Your task to perform on an android device: Open the Play Movies app and select the watchlist tab. Image 0: 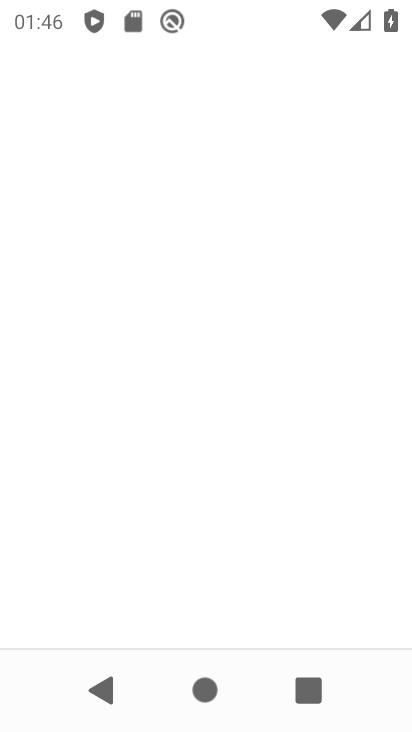
Step 0: drag from (204, 528) to (384, 219)
Your task to perform on an android device: Open the Play Movies app and select the watchlist tab. Image 1: 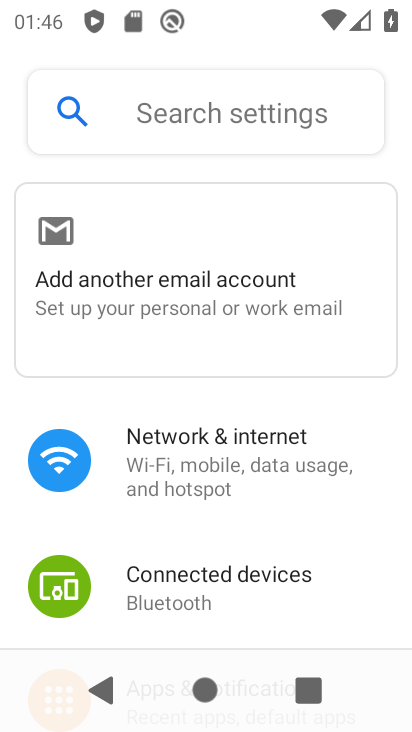
Step 1: press home button
Your task to perform on an android device: Open the Play Movies app and select the watchlist tab. Image 2: 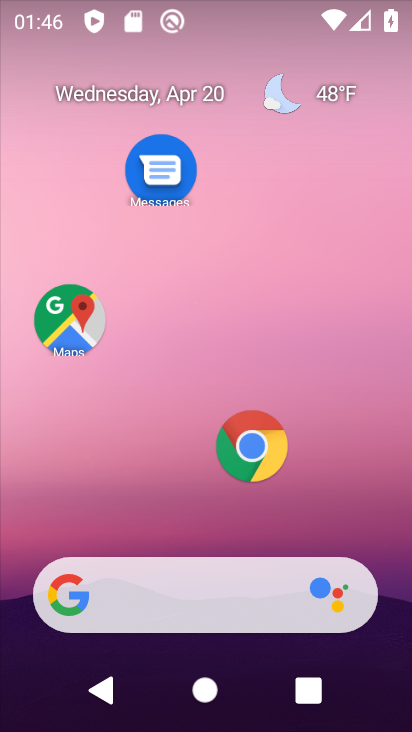
Step 2: drag from (215, 536) to (249, 78)
Your task to perform on an android device: Open the Play Movies app and select the watchlist tab. Image 3: 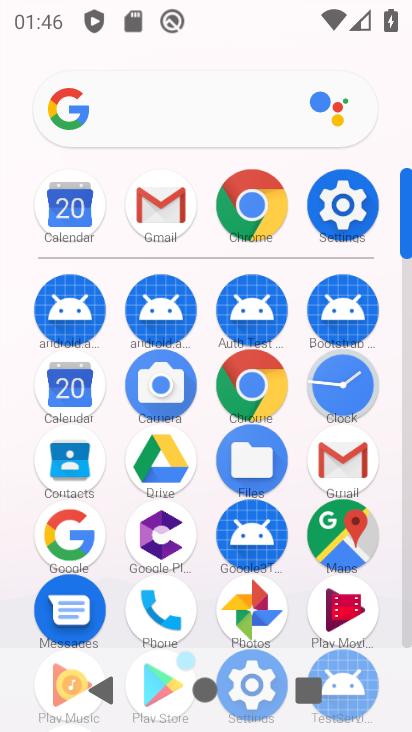
Step 3: click (341, 607)
Your task to perform on an android device: Open the Play Movies app and select the watchlist tab. Image 4: 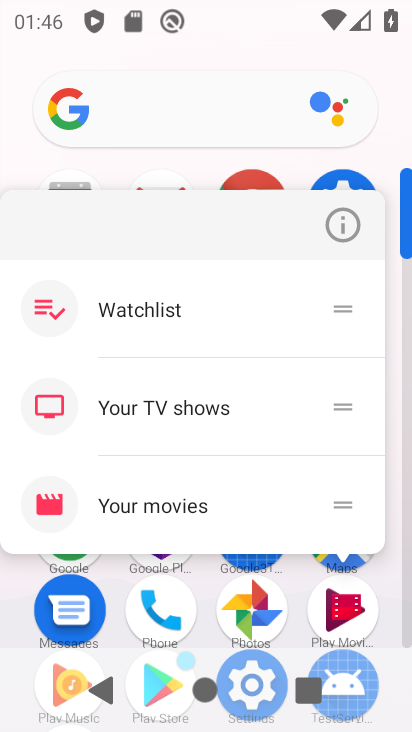
Step 4: click (341, 607)
Your task to perform on an android device: Open the Play Movies app and select the watchlist tab. Image 5: 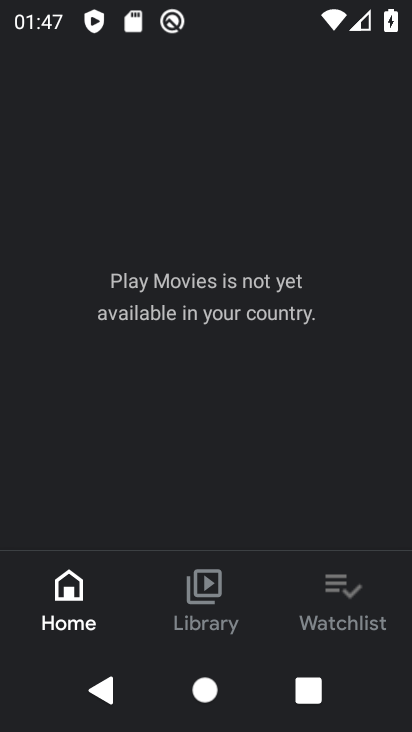
Step 5: click (346, 589)
Your task to perform on an android device: Open the Play Movies app and select the watchlist tab. Image 6: 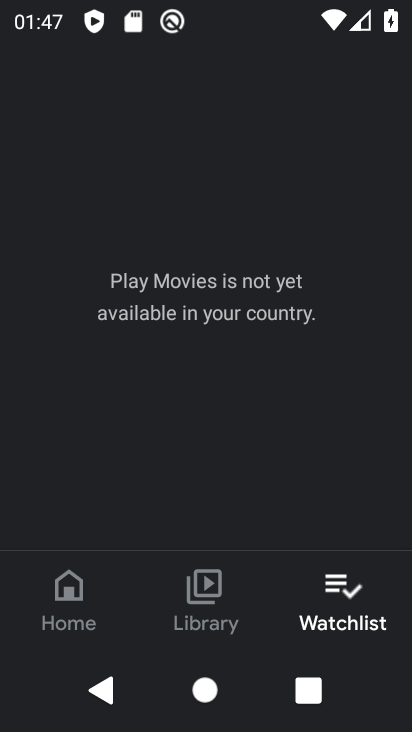
Step 6: task complete